Your task to perform on an android device: Open maps Image 0: 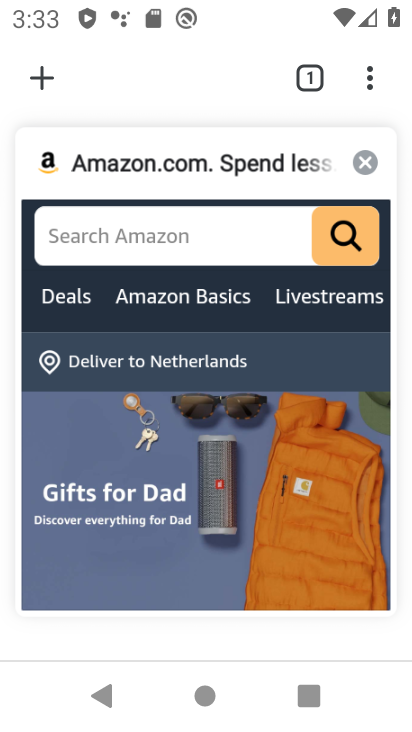
Step 0: press home button
Your task to perform on an android device: Open maps Image 1: 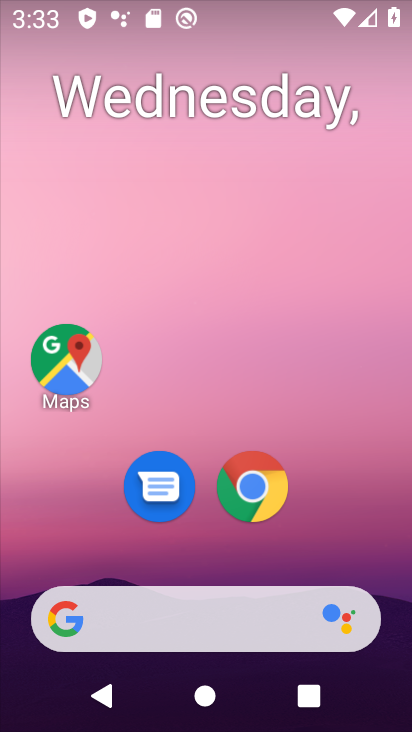
Step 1: click (59, 369)
Your task to perform on an android device: Open maps Image 2: 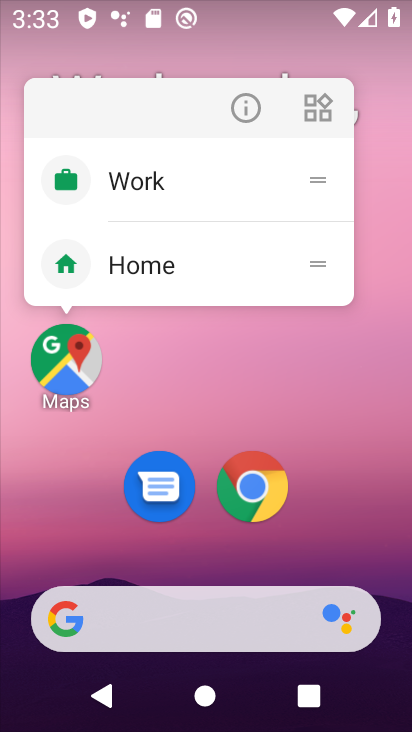
Step 2: click (70, 379)
Your task to perform on an android device: Open maps Image 3: 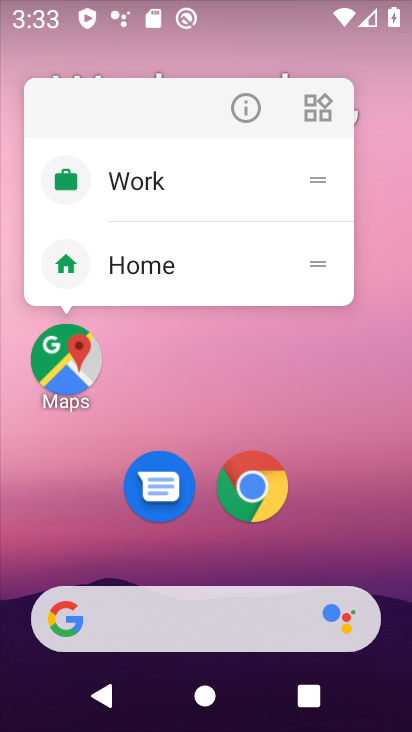
Step 3: click (76, 390)
Your task to perform on an android device: Open maps Image 4: 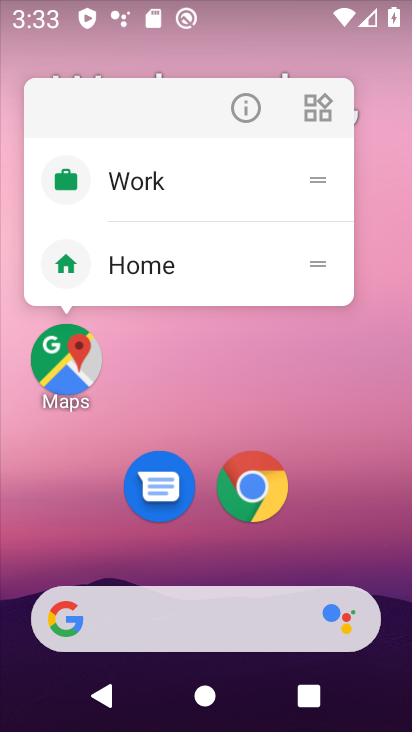
Step 4: click (74, 359)
Your task to perform on an android device: Open maps Image 5: 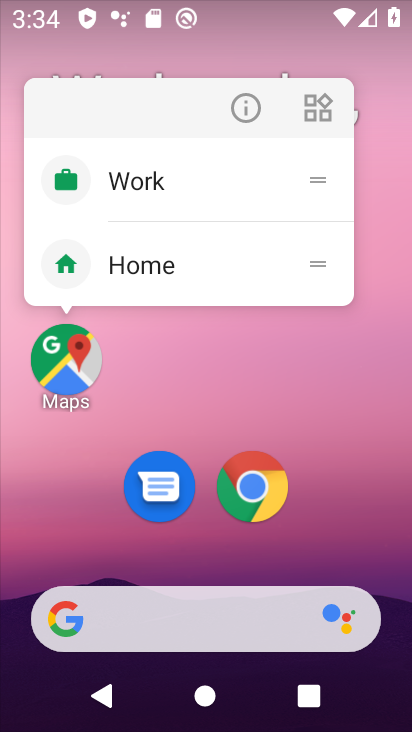
Step 5: click (118, 265)
Your task to perform on an android device: Open maps Image 6: 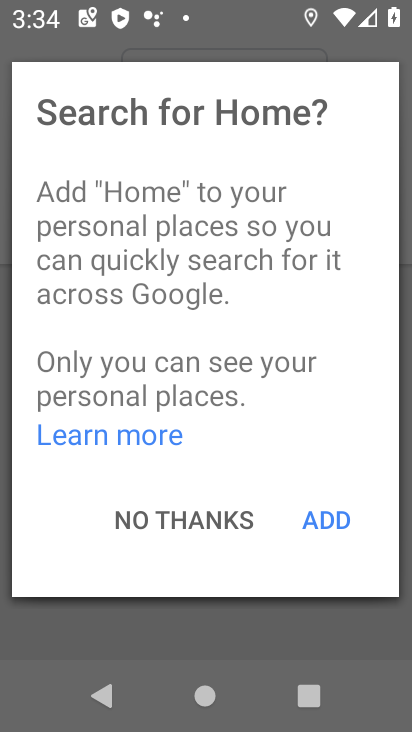
Step 6: click (172, 523)
Your task to perform on an android device: Open maps Image 7: 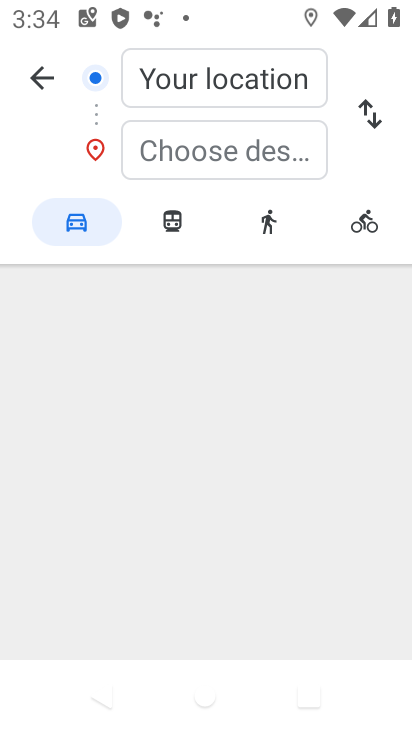
Step 7: click (33, 85)
Your task to perform on an android device: Open maps Image 8: 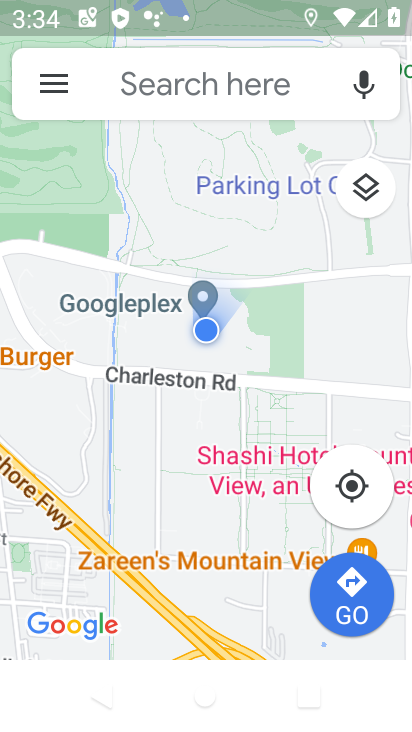
Step 8: task complete